Your task to perform on an android device: Open calendar and show me the third week of next month Image 0: 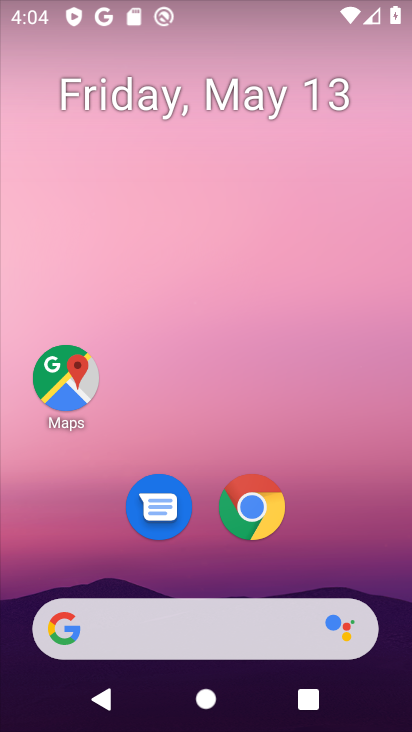
Step 0: drag from (89, 597) to (250, 80)
Your task to perform on an android device: Open calendar and show me the third week of next month Image 1: 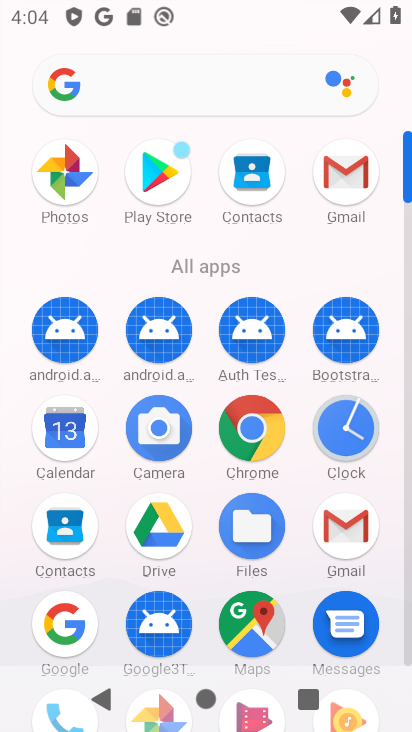
Step 1: drag from (129, 588) to (187, 411)
Your task to perform on an android device: Open calendar and show me the third week of next month Image 2: 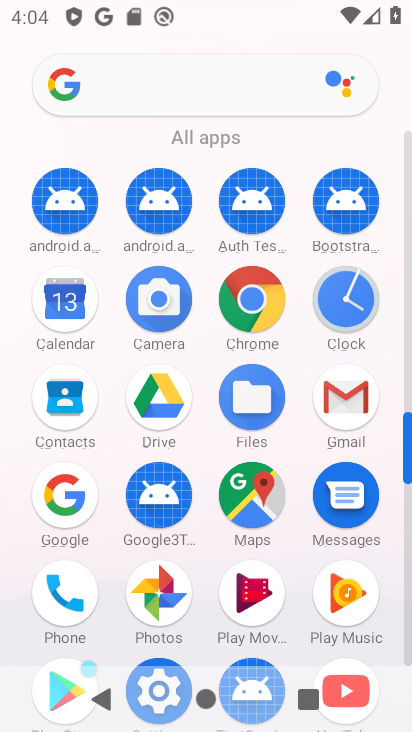
Step 2: drag from (152, 607) to (217, 450)
Your task to perform on an android device: Open calendar and show me the third week of next month Image 3: 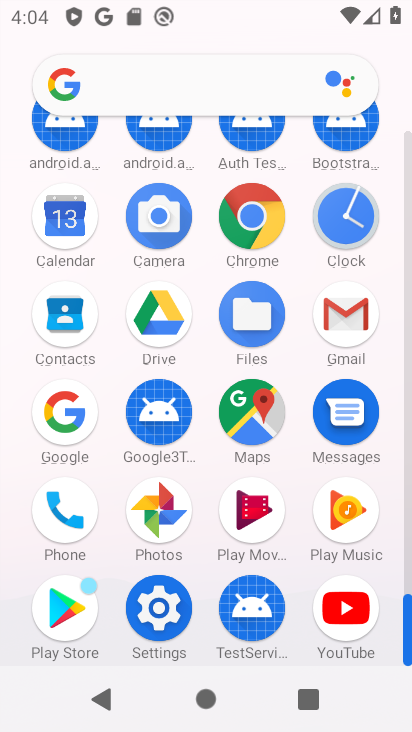
Step 3: click (82, 230)
Your task to perform on an android device: Open calendar and show me the third week of next month Image 4: 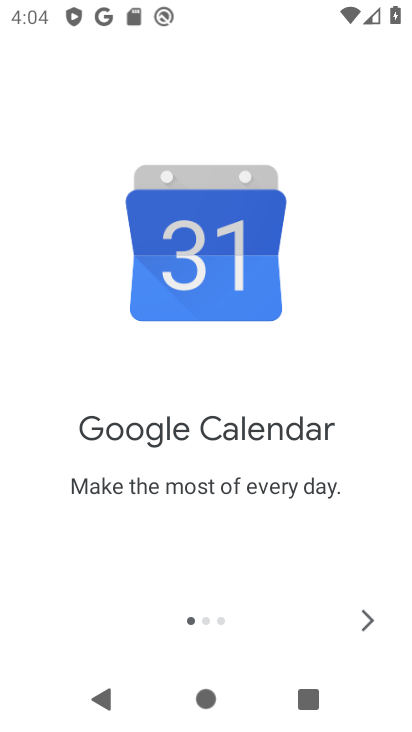
Step 4: click (361, 625)
Your task to perform on an android device: Open calendar and show me the third week of next month Image 5: 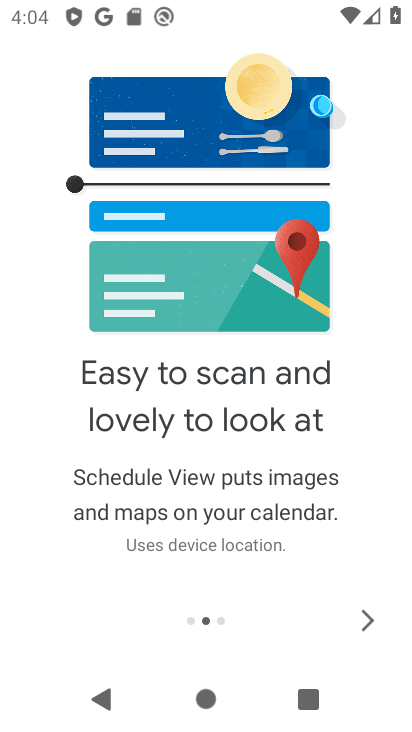
Step 5: click (361, 625)
Your task to perform on an android device: Open calendar and show me the third week of next month Image 6: 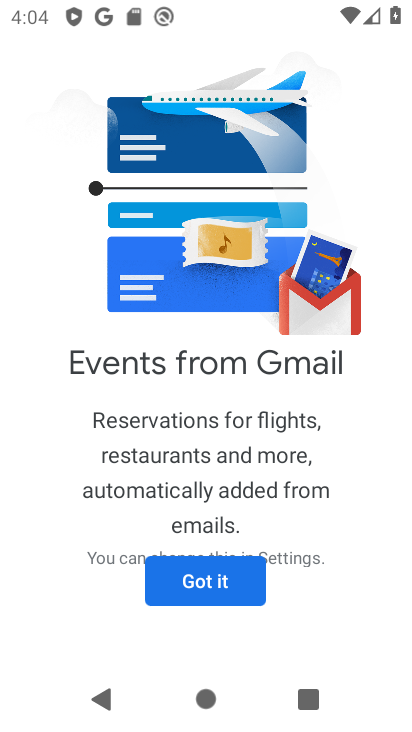
Step 6: click (247, 594)
Your task to perform on an android device: Open calendar and show me the third week of next month Image 7: 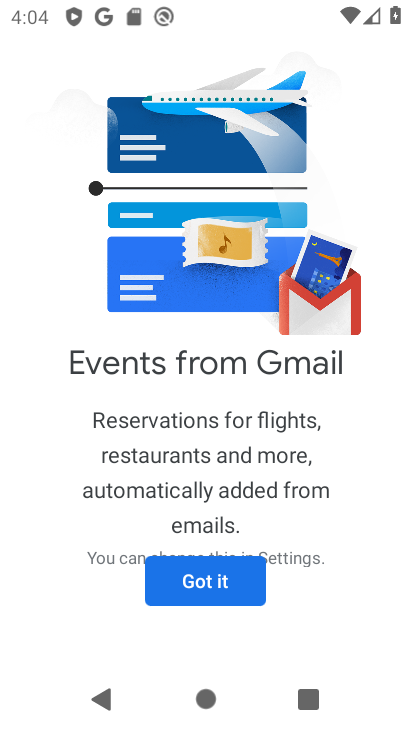
Step 7: click (247, 594)
Your task to perform on an android device: Open calendar and show me the third week of next month Image 8: 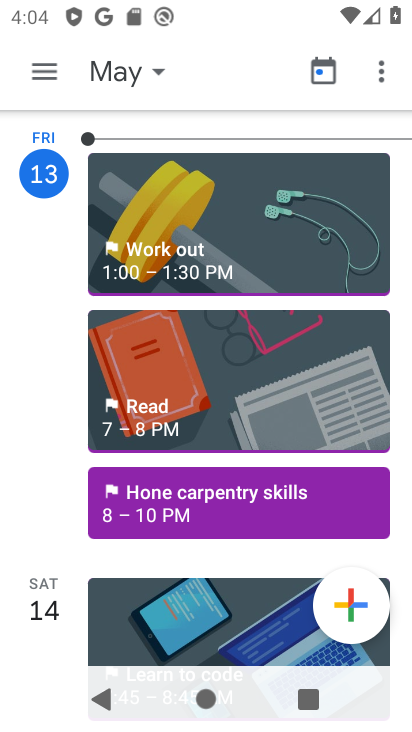
Step 8: click (130, 70)
Your task to perform on an android device: Open calendar and show me the third week of next month Image 9: 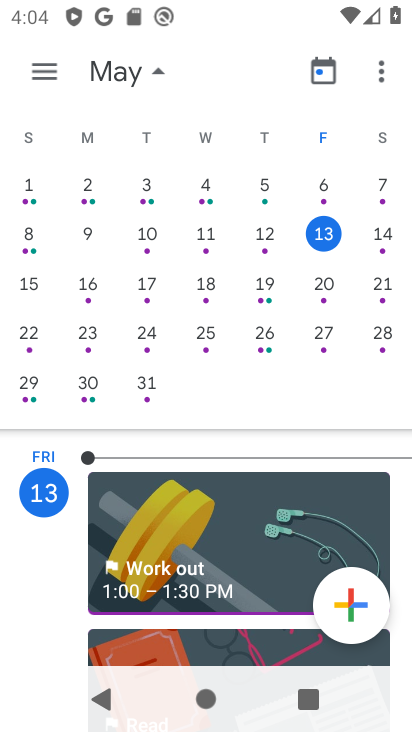
Step 9: drag from (379, 379) to (25, 372)
Your task to perform on an android device: Open calendar and show me the third week of next month Image 10: 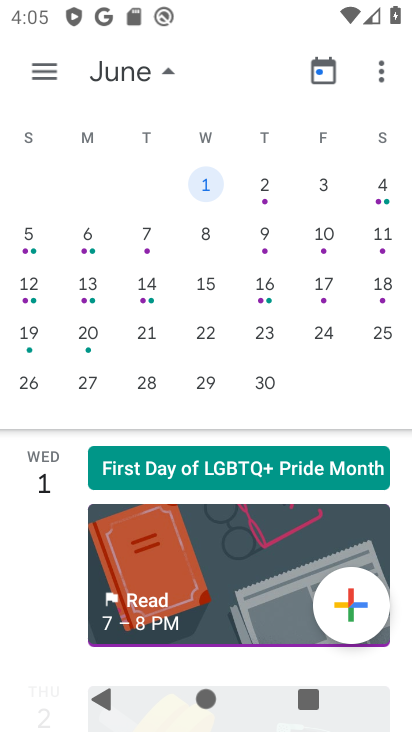
Step 10: click (38, 336)
Your task to perform on an android device: Open calendar and show me the third week of next month Image 11: 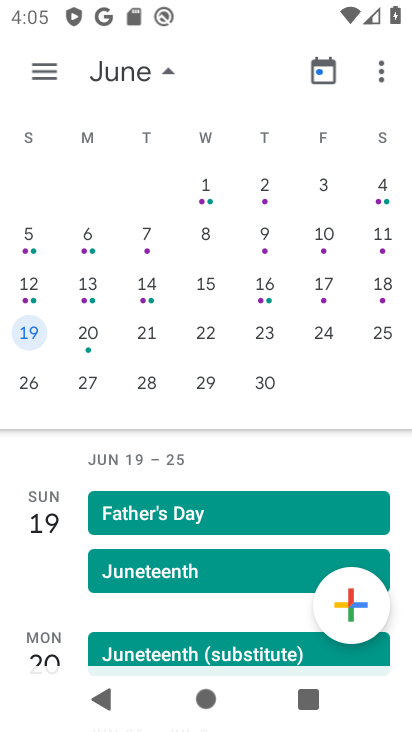
Step 11: click (51, 71)
Your task to perform on an android device: Open calendar and show me the third week of next month Image 12: 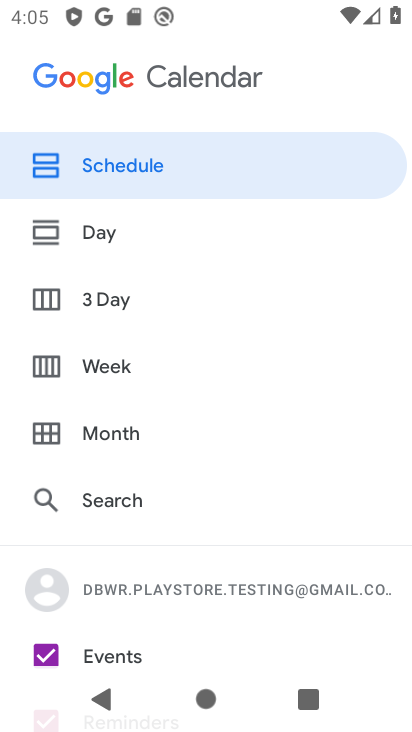
Step 12: click (141, 365)
Your task to perform on an android device: Open calendar and show me the third week of next month Image 13: 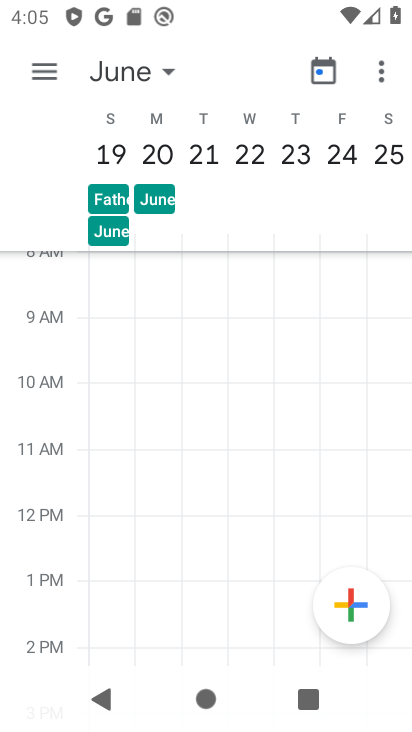
Step 13: task complete